Your task to perform on an android device: visit the assistant section in the google photos Image 0: 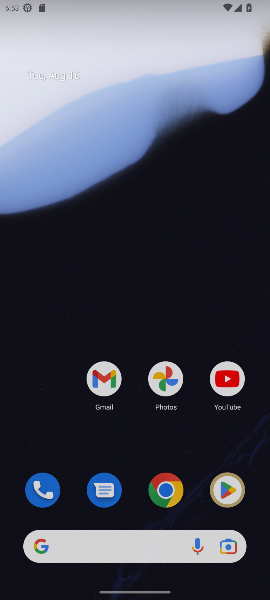
Step 0: click (103, 150)
Your task to perform on an android device: visit the assistant section in the google photos Image 1: 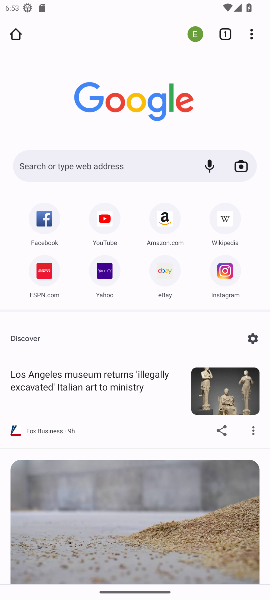
Step 1: press home button
Your task to perform on an android device: visit the assistant section in the google photos Image 2: 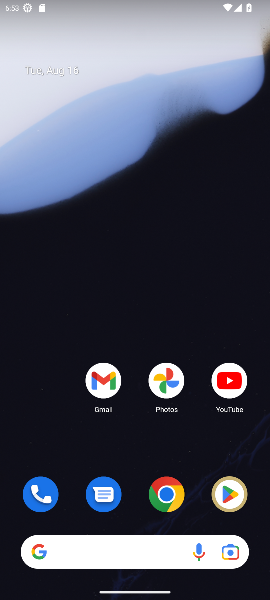
Step 2: drag from (78, 412) to (72, 168)
Your task to perform on an android device: visit the assistant section in the google photos Image 3: 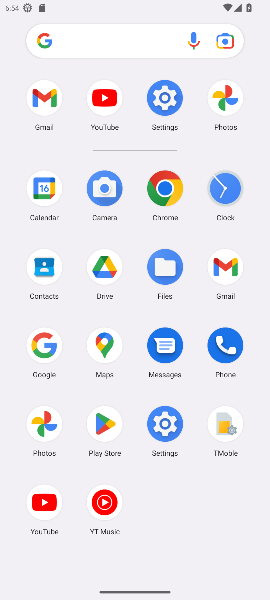
Step 3: click (224, 101)
Your task to perform on an android device: visit the assistant section in the google photos Image 4: 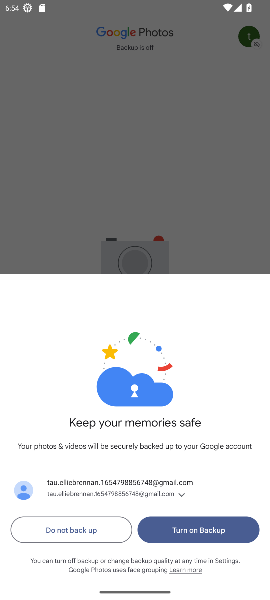
Step 4: task complete